Your task to perform on an android device: Set the phone to "Do not disturb". Image 0: 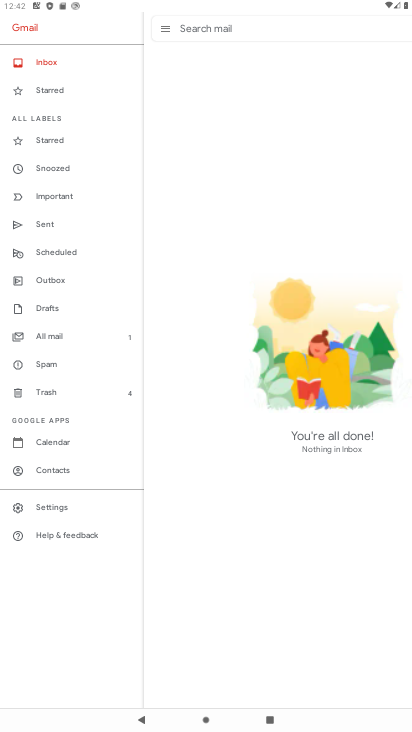
Step 0: press home button
Your task to perform on an android device: Set the phone to "Do not disturb". Image 1: 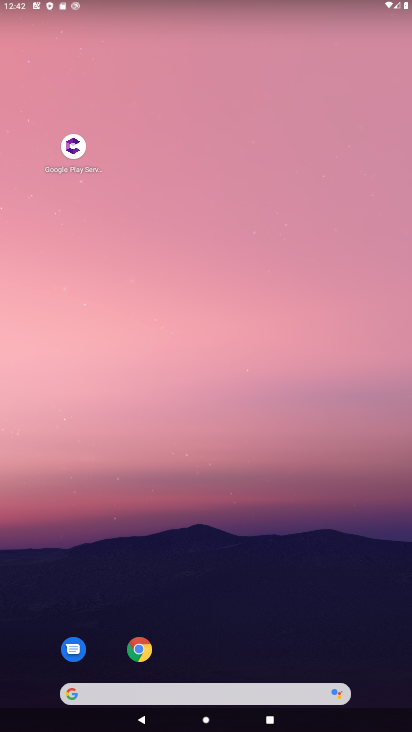
Step 1: drag from (197, 667) to (243, 235)
Your task to perform on an android device: Set the phone to "Do not disturb". Image 2: 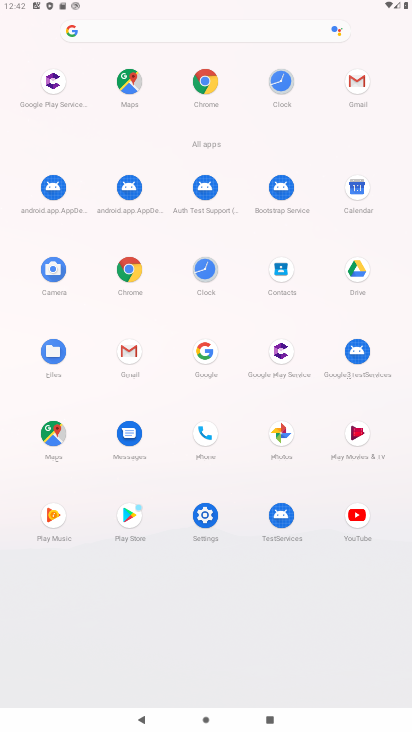
Step 2: click (216, 515)
Your task to perform on an android device: Set the phone to "Do not disturb". Image 3: 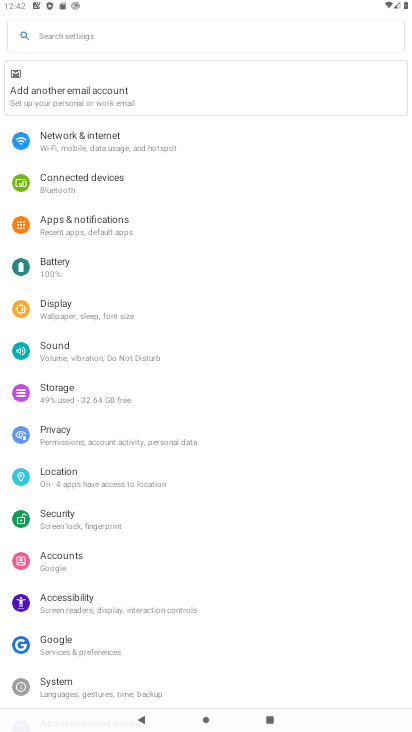
Step 3: click (118, 237)
Your task to perform on an android device: Set the phone to "Do not disturb". Image 4: 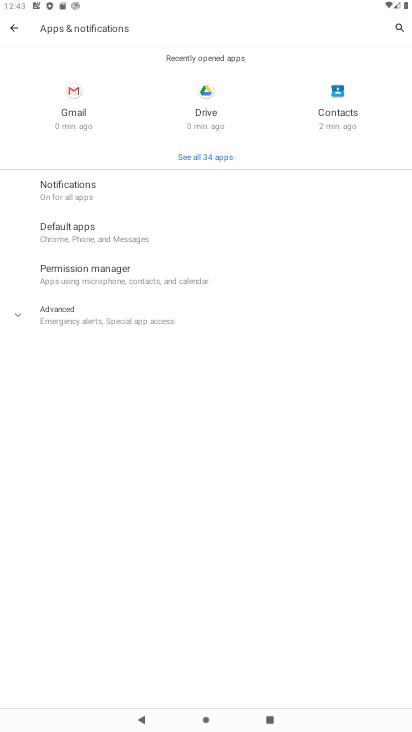
Step 4: click (128, 202)
Your task to perform on an android device: Set the phone to "Do not disturb". Image 5: 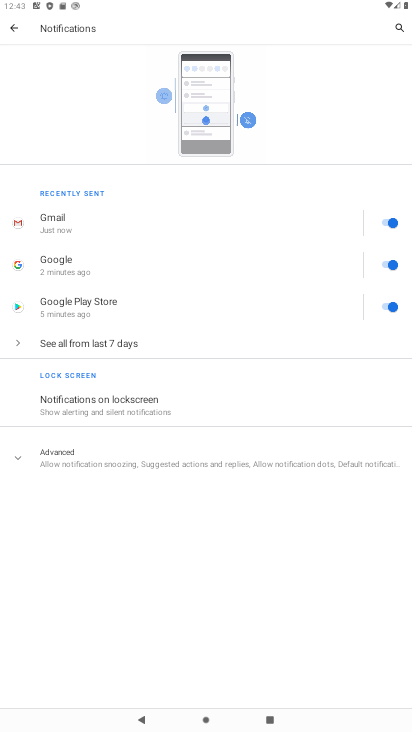
Step 5: click (139, 460)
Your task to perform on an android device: Set the phone to "Do not disturb". Image 6: 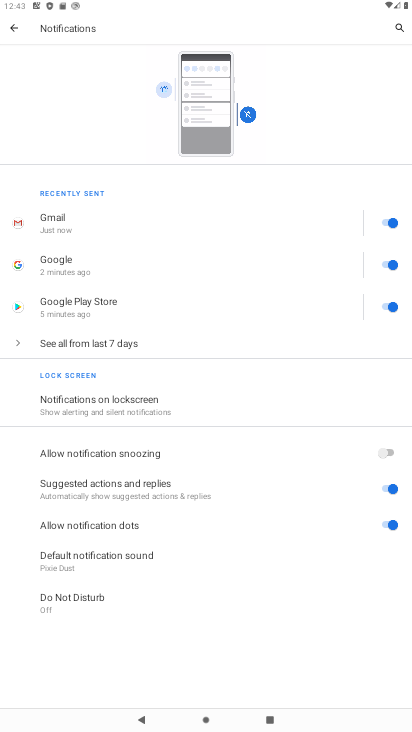
Step 6: click (141, 600)
Your task to perform on an android device: Set the phone to "Do not disturb". Image 7: 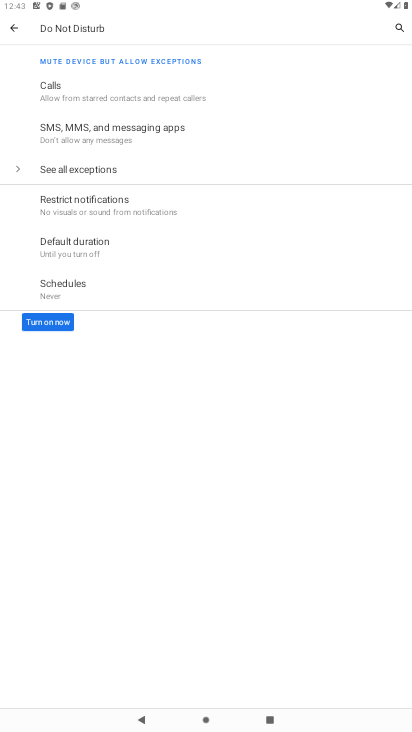
Step 7: click (53, 324)
Your task to perform on an android device: Set the phone to "Do not disturb". Image 8: 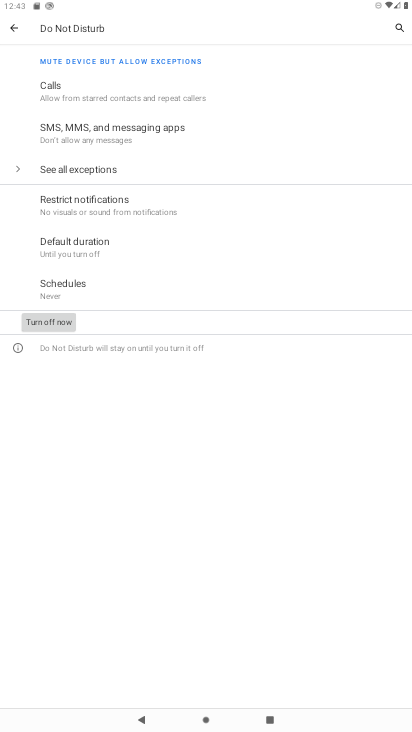
Step 8: task complete